Your task to perform on an android device: change the clock display to show seconds Image 0: 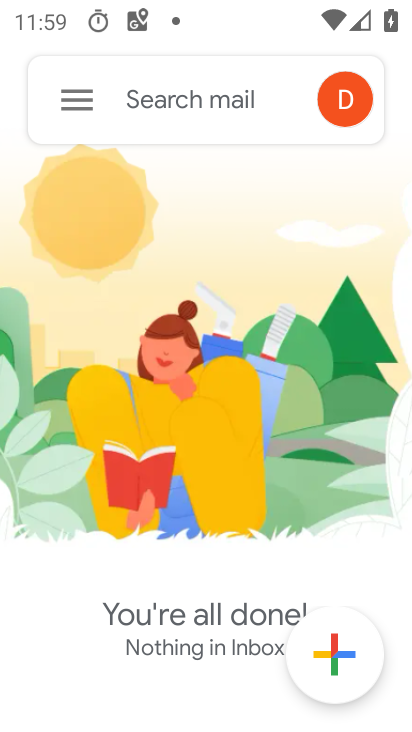
Step 0: press home button
Your task to perform on an android device: change the clock display to show seconds Image 1: 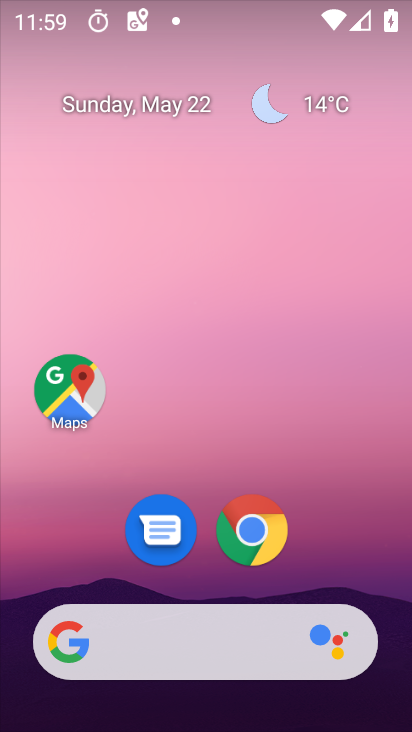
Step 1: drag from (401, 699) to (407, 113)
Your task to perform on an android device: change the clock display to show seconds Image 2: 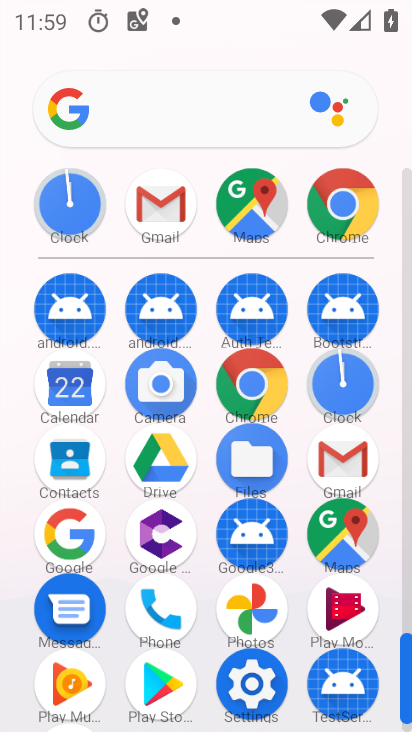
Step 2: click (327, 473)
Your task to perform on an android device: change the clock display to show seconds Image 3: 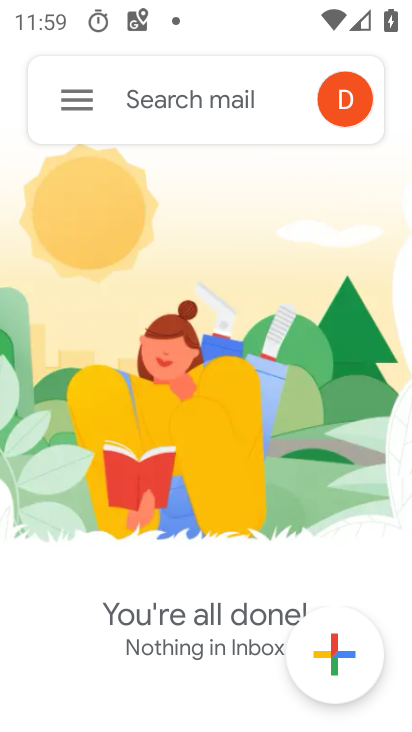
Step 3: press back button
Your task to perform on an android device: change the clock display to show seconds Image 4: 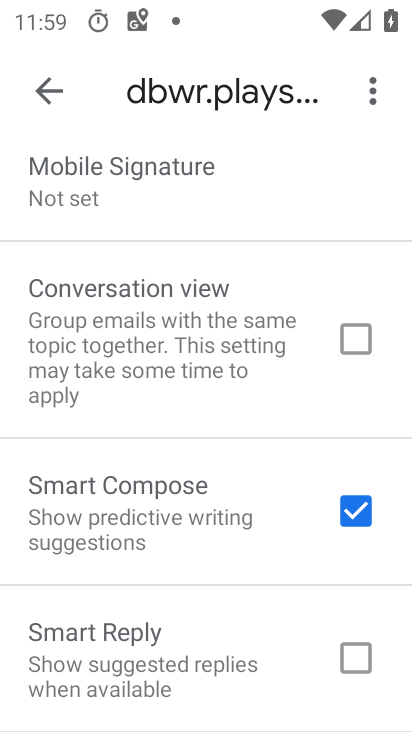
Step 4: press back button
Your task to perform on an android device: change the clock display to show seconds Image 5: 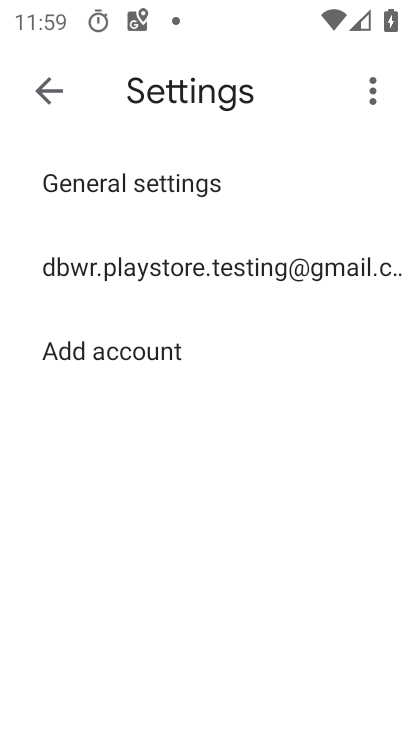
Step 5: press home button
Your task to perform on an android device: change the clock display to show seconds Image 6: 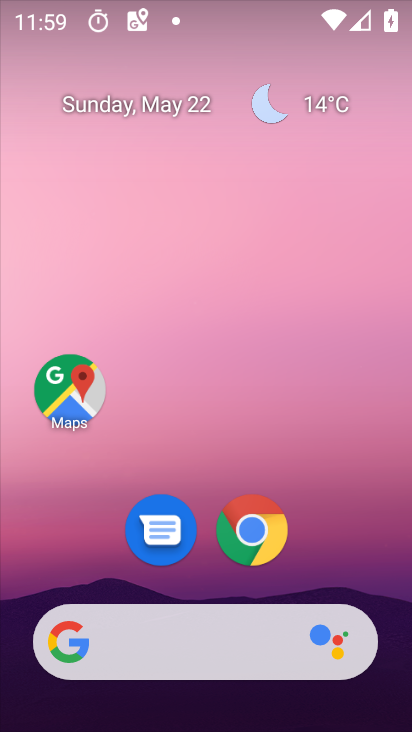
Step 6: drag from (395, 693) to (355, 176)
Your task to perform on an android device: change the clock display to show seconds Image 7: 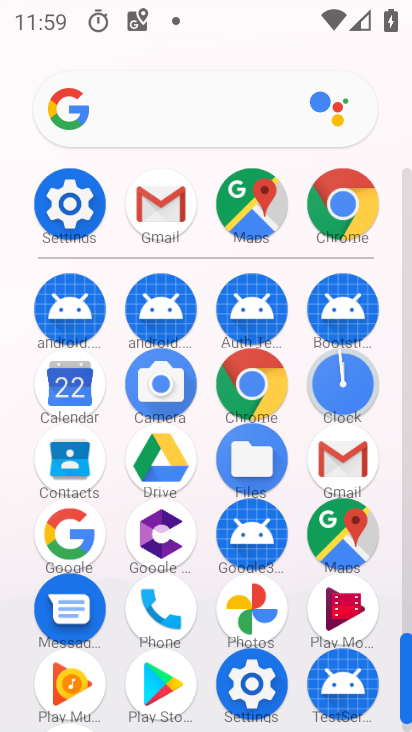
Step 7: click (338, 388)
Your task to perform on an android device: change the clock display to show seconds Image 8: 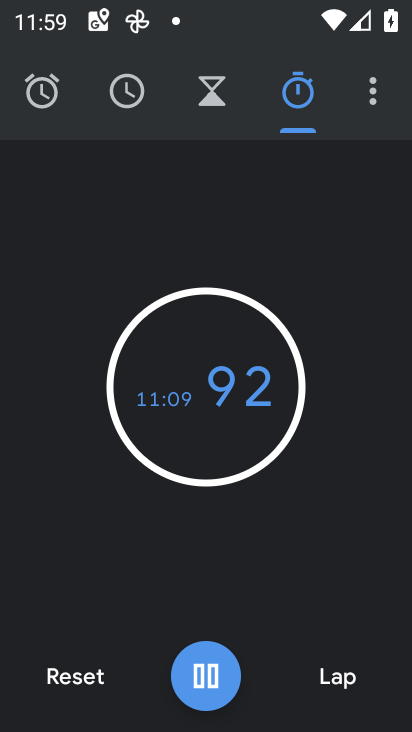
Step 8: click (369, 86)
Your task to perform on an android device: change the clock display to show seconds Image 9: 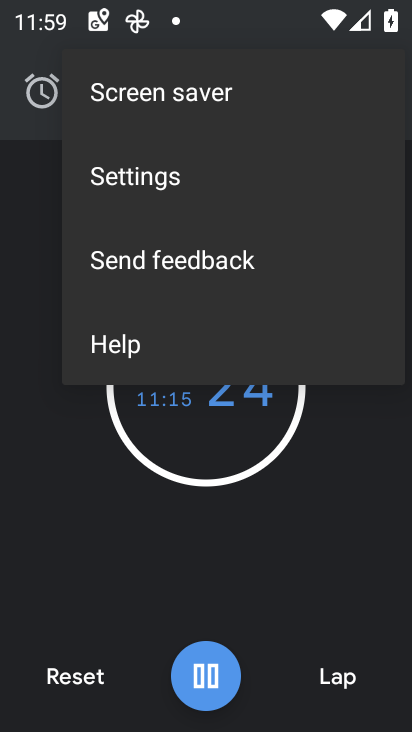
Step 9: click (146, 165)
Your task to perform on an android device: change the clock display to show seconds Image 10: 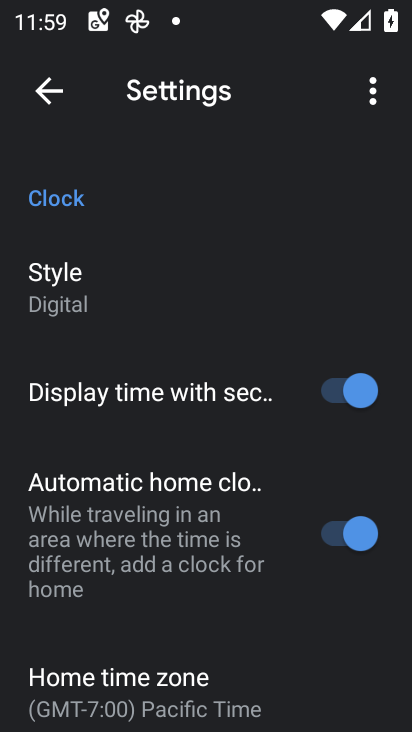
Step 10: task complete